Your task to perform on an android device: see tabs open on other devices in the chrome app Image 0: 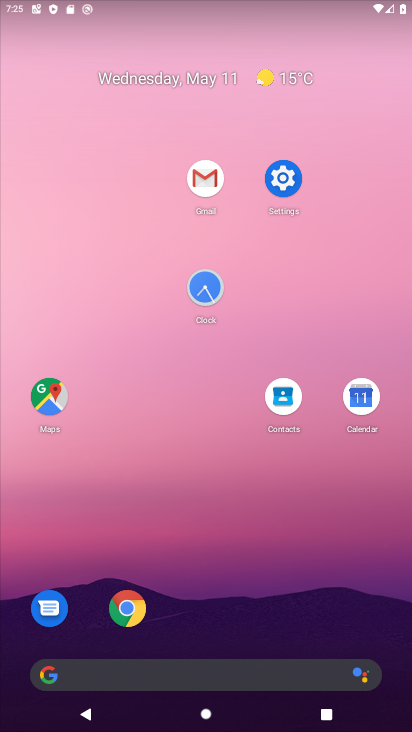
Step 0: click (133, 602)
Your task to perform on an android device: see tabs open on other devices in the chrome app Image 1: 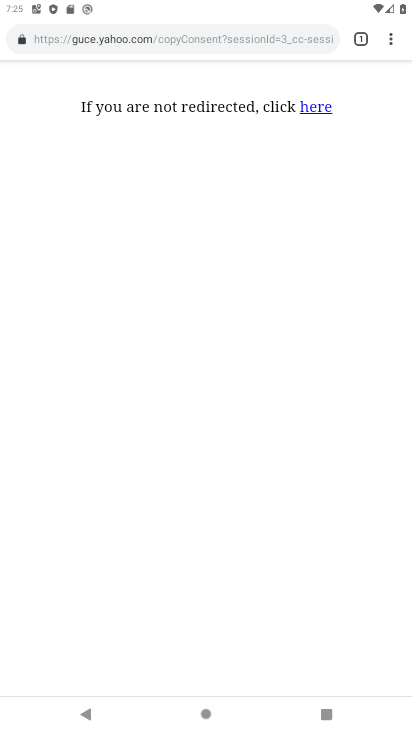
Step 1: click (388, 46)
Your task to perform on an android device: see tabs open on other devices in the chrome app Image 2: 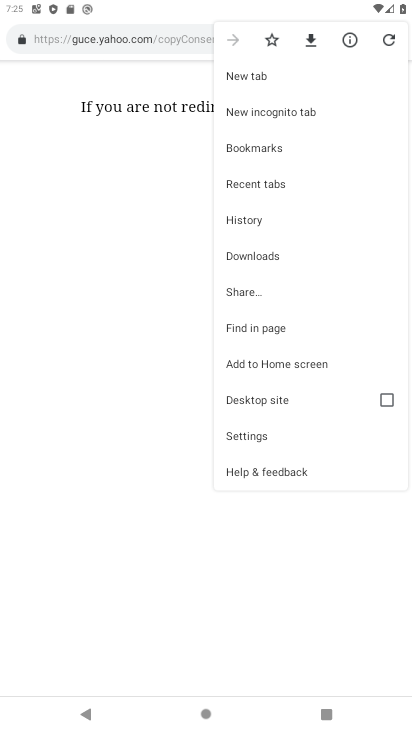
Step 2: click (282, 186)
Your task to perform on an android device: see tabs open on other devices in the chrome app Image 3: 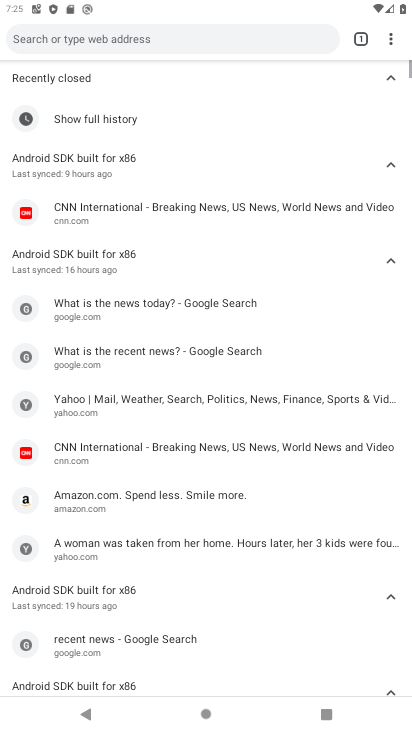
Step 3: task complete